Your task to perform on an android device: remove spam from my inbox in the gmail app Image 0: 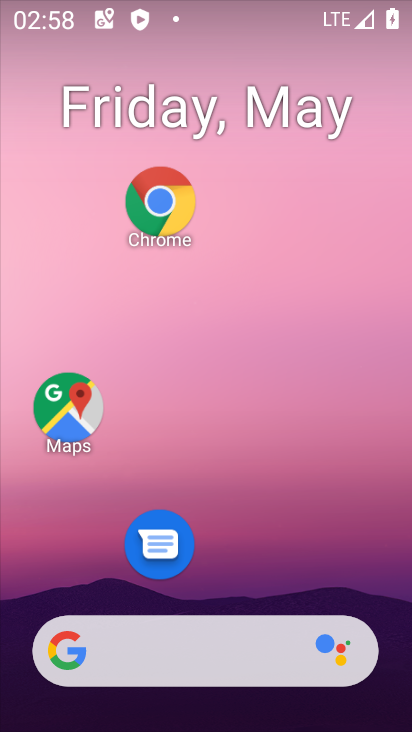
Step 0: drag from (227, 452) to (247, 117)
Your task to perform on an android device: remove spam from my inbox in the gmail app Image 1: 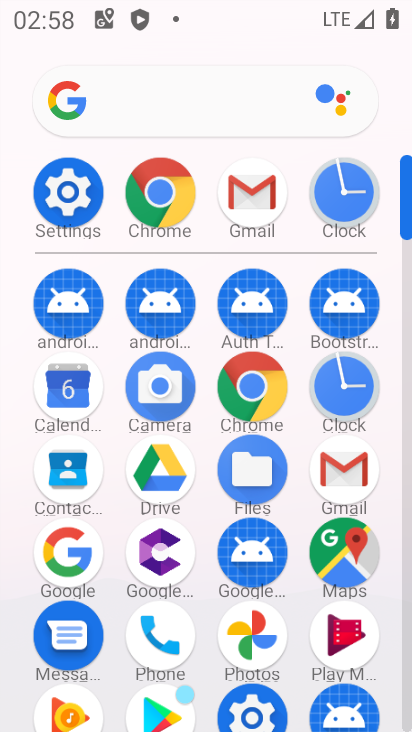
Step 1: click (356, 468)
Your task to perform on an android device: remove spam from my inbox in the gmail app Image 2: 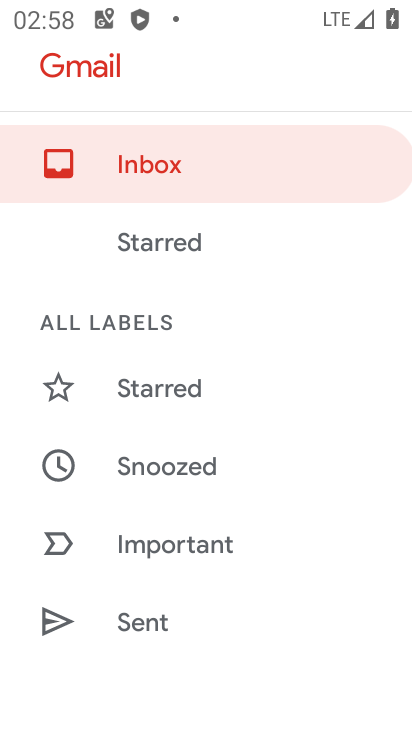
Step 2: drag from (164, 350) to (235, 654)
Your task to perform on an android device: remove spam from my inbox in the gmail app Image 3: 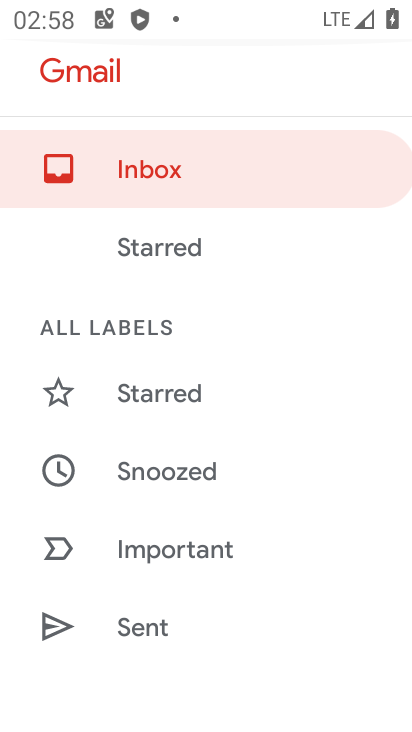
Step 3: drag from (178, 518) to (153, 141)
Your task to perform on an android device: remove spam from my inbox in the gmail app Image 4: 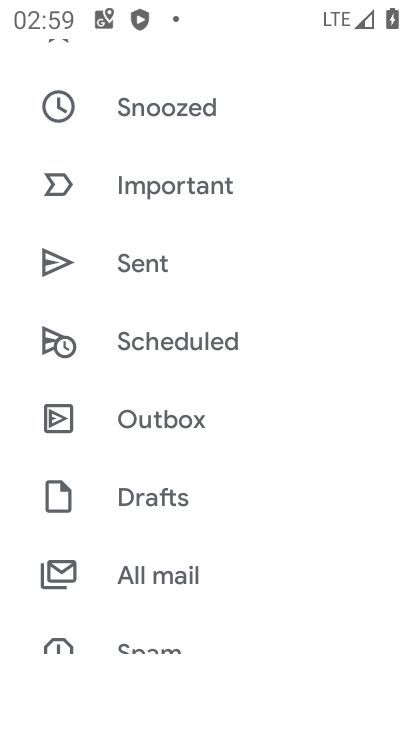
Step 4: drag from (174, 529) to (138, 276)
Your task to perform on an android device: remove spam from my inbox in the gmail app Image 5: 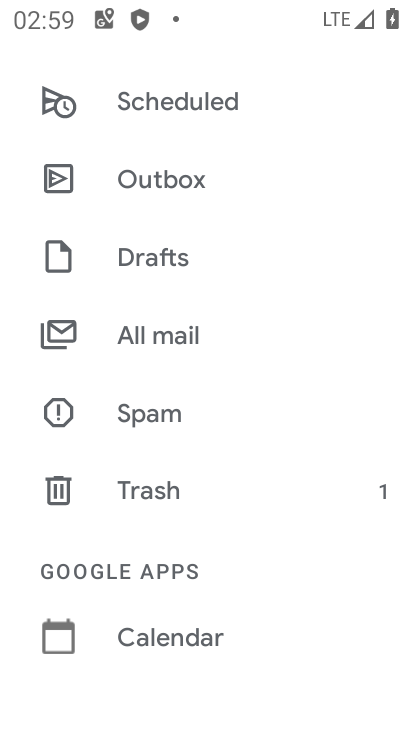
Step 5: click (146, 418)
Your task to perform on an android device: remove spam from my inbox in the gmail app Image 6: 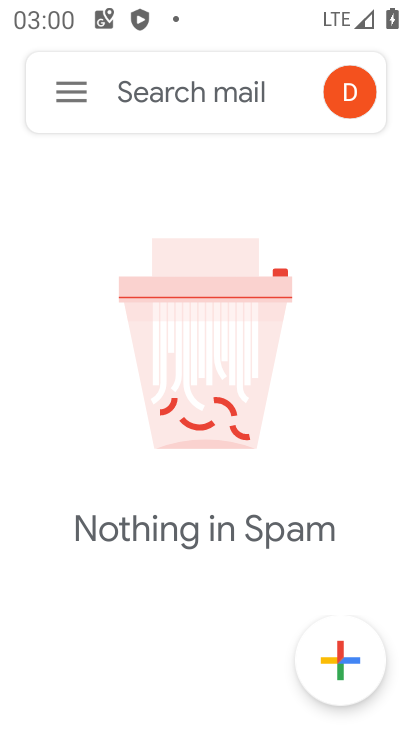
Step 6: click (51, 104)
Your task to perform on an android device: remove spam from my inbox in the gmail app Image 7: 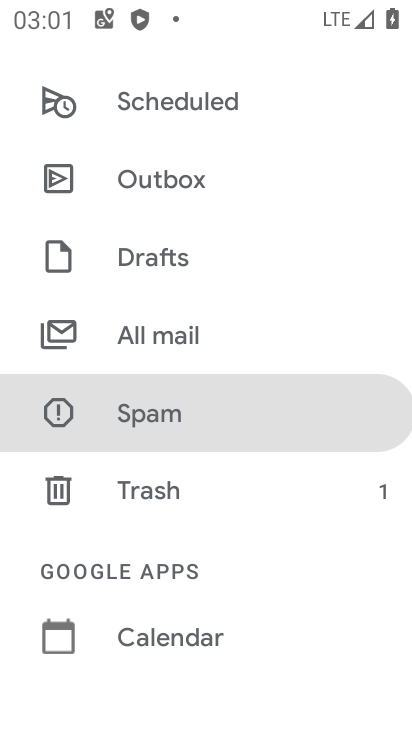
Step 7: click (150, 487)
Your task to perform on an android device: remove spam from my inbox in the gmail app Image 8: 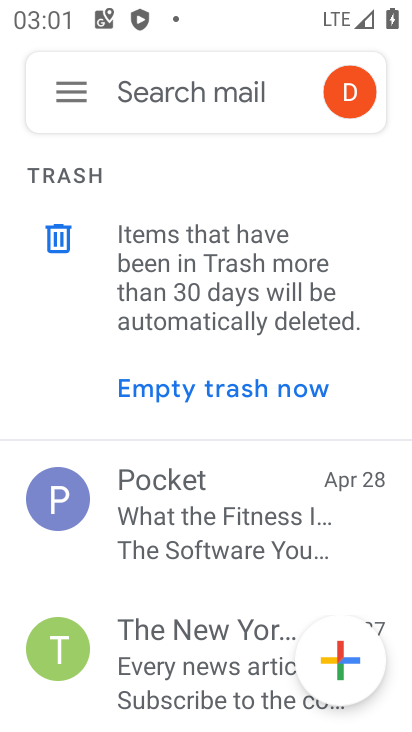
Step 8: click (208, 401)
Your task to perform on an android device: remove spam from my inbox in the gmail app Image 9: 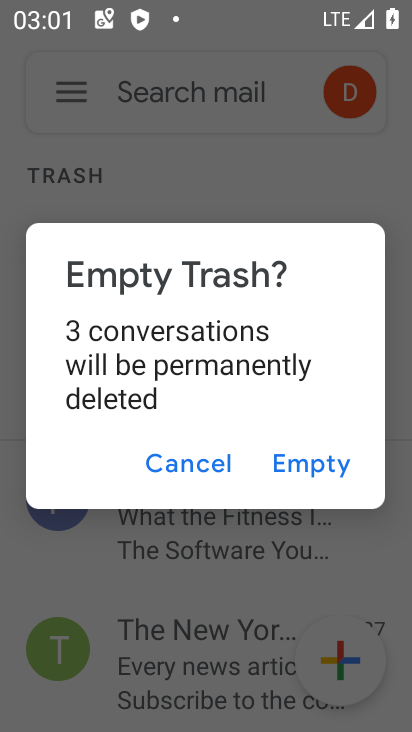
Step 9: click (306, 464)
Your task to perform on an android device: remove spam from my inbox in the gmail app Image 10: 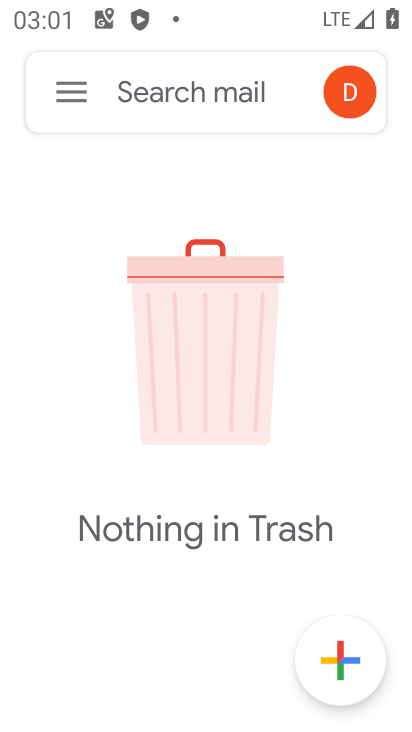
Step 10: task complete